Your task to perform on an android device: turn on location history Image 0: 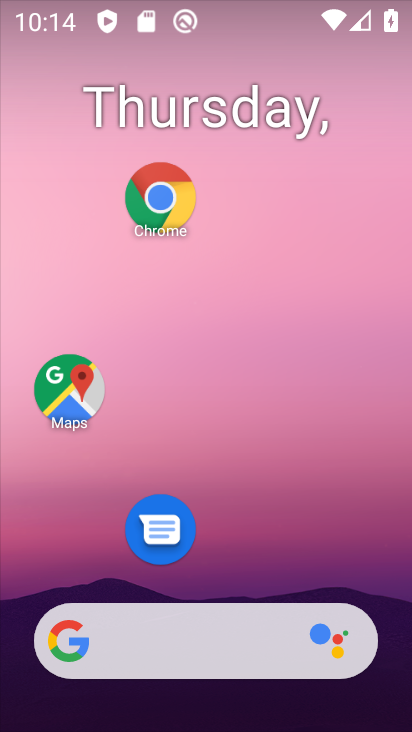
Step 0: click (69, 400)
Your task to perform on an android device: turn on location history Image 1: 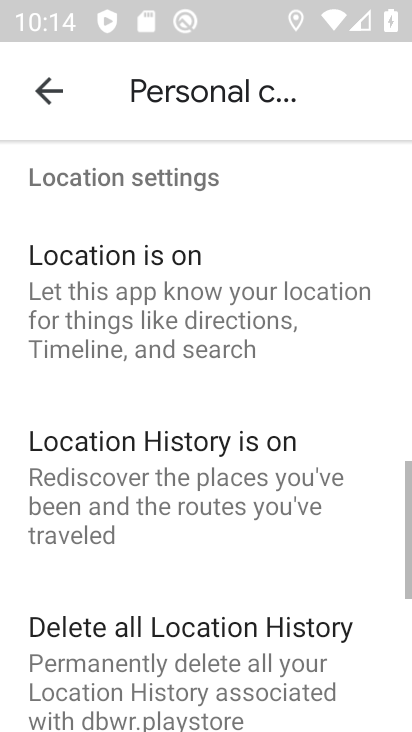
Step 1: click (45, 96)
Your task to perform on an android device: turn on location history Image 2: 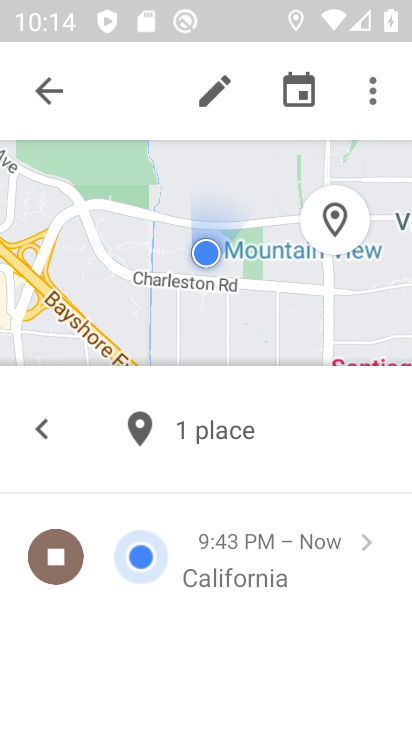
Step 2: click (376, 84)
Your task to perform on an android device: turn on location history Image 3: 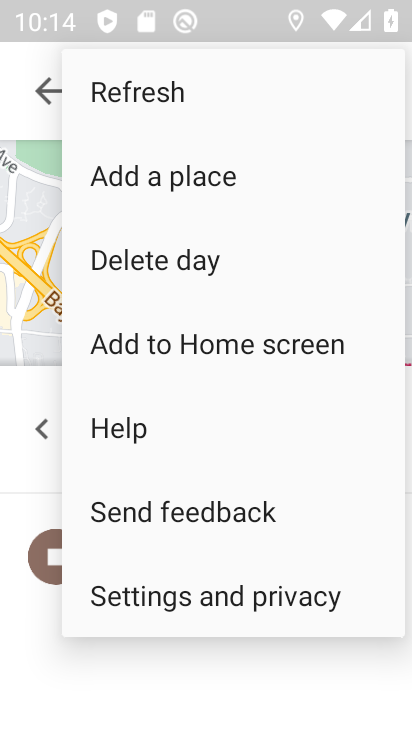
Step 3: click (236, 595)
Your task to perform on an android device: turn on location history Image 4: 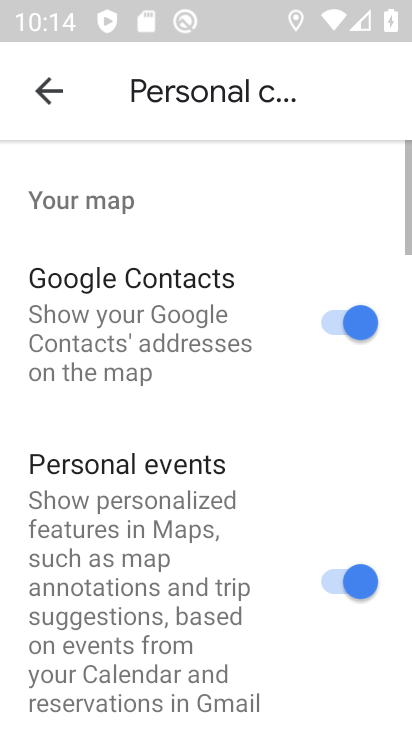
Step 4: drag from (247, 562) to (194, 269)
Your task to perform on an android device: turn on location history Image 5: 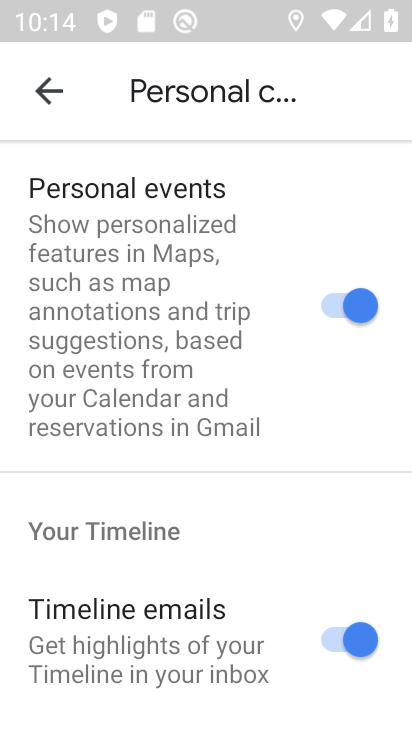
Step 5: drag from (235, 498) to (207, 210)
Your task to perform on an android device: turn on location history Image 6: 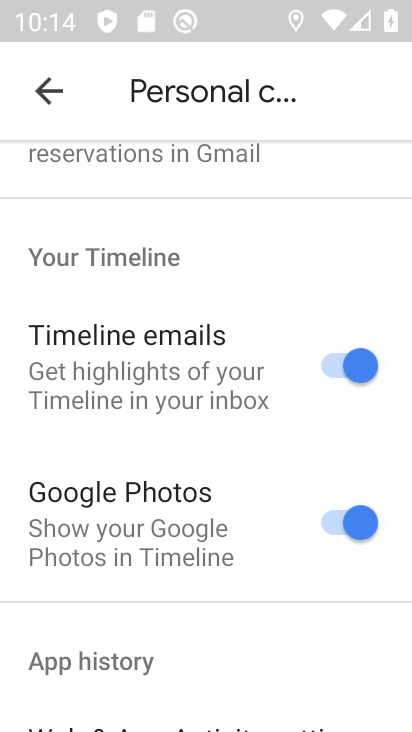
Step 6: drag from (223, 612) to (229, 323)
Your task to perform on an android device: turn on location history Image 7: 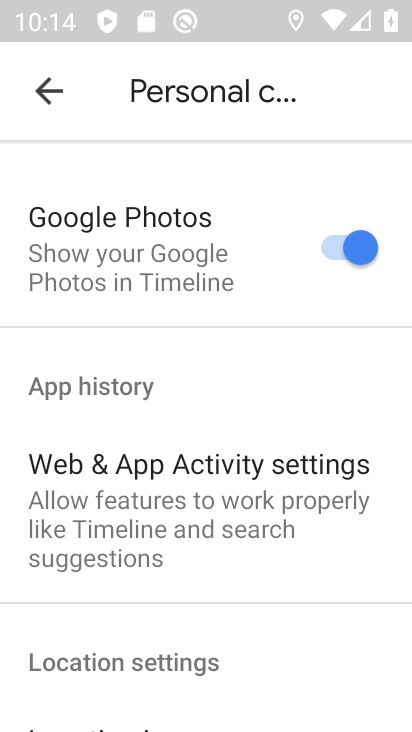
Step 7: drag from (230, 589) to (227, 172)
Your task to perform on an android device: turn on location history Image 8: 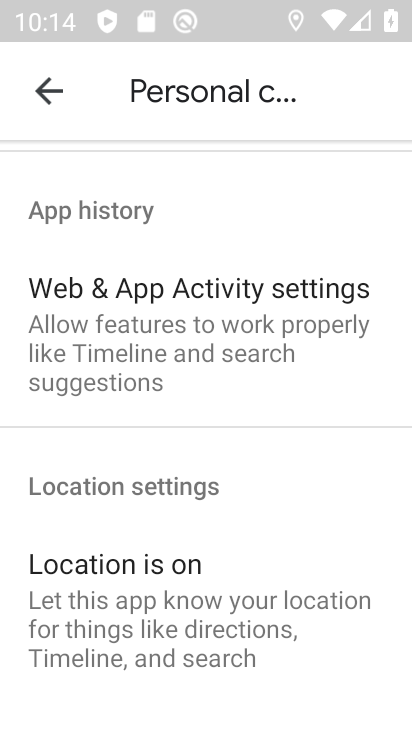
Step 8: drag from (254, 455) to (205, 255)
Your task to perform on an android device: turn on location history Image 9: 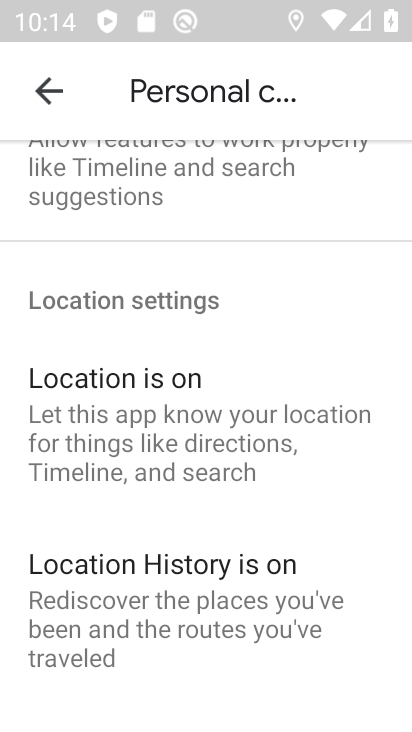
Step 9: drag from (236, 517) to (190, 139)
Your task to perform on an android device: turn on location history Image 10: 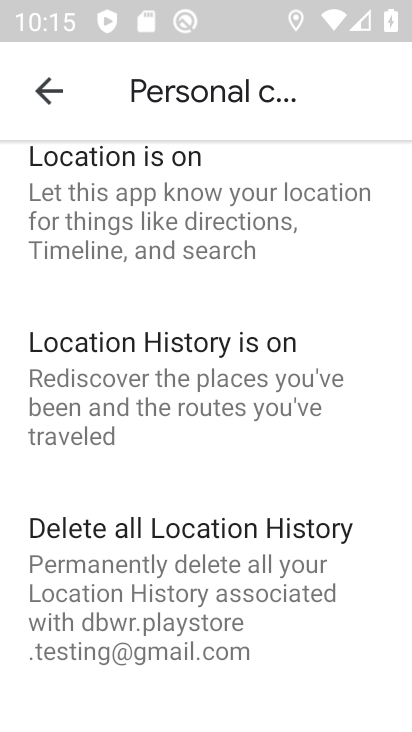
Step 10: click (144, 338)
Your task to perform on an android device: turn on location history Image 11: 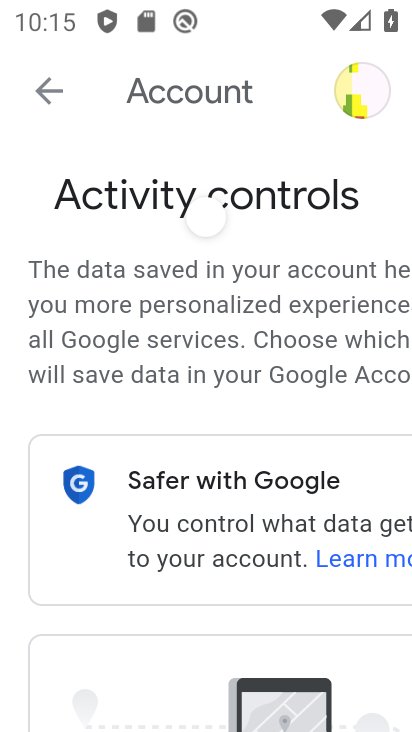
Step 11: task complete